Your task to perform on an android device: What is the recent news? Image 0: 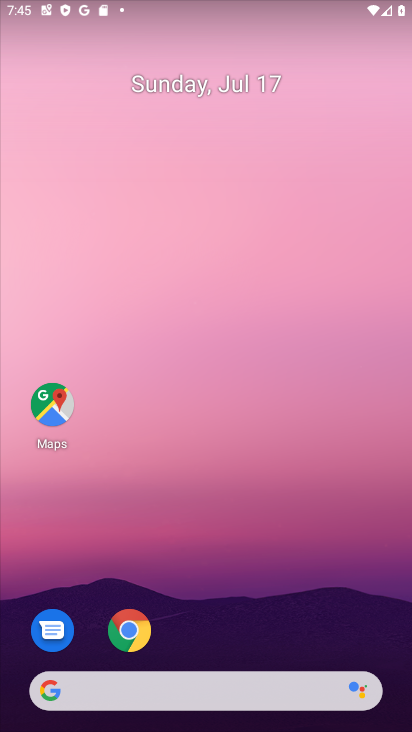
Step 0: drag from (200, 567) to (191, 63)
Your task to perform on an android device: What is the recent news? Image 1: 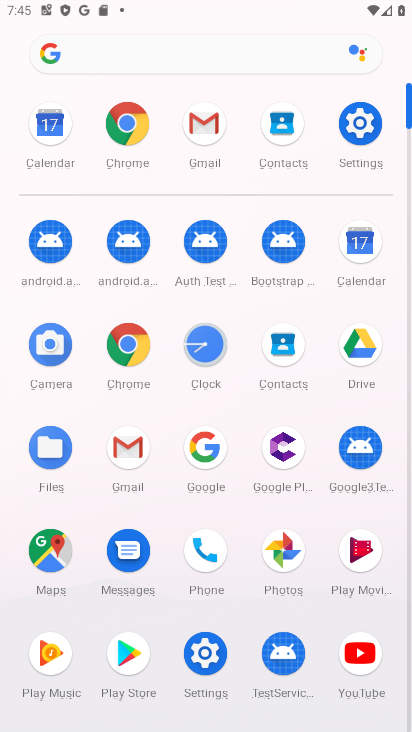
Step 1: click (212, 472)
Your task to perform on an android device: What is the recent news? Image 2: 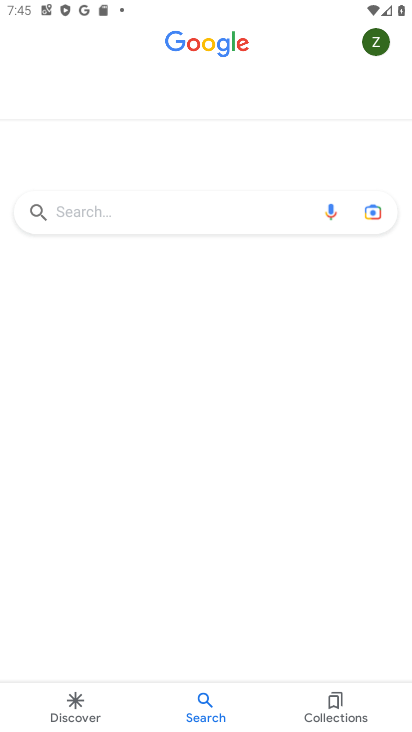
Step 2: click (133, 216)
Your task to perform on an android device: What is the recent news? Image 3: 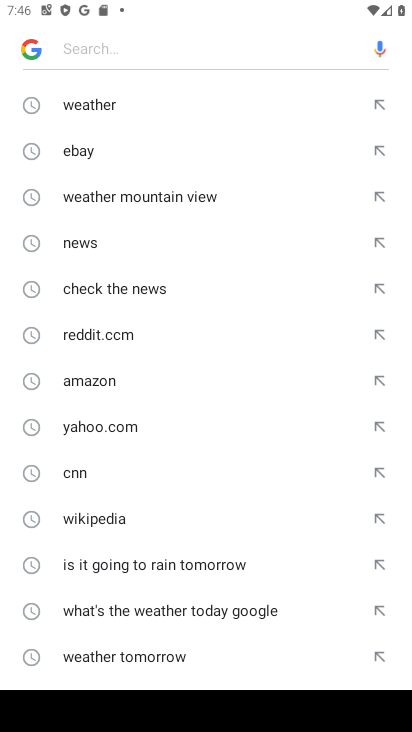
Step 3: type "recent news"
Your task to perform on an android device: What is the recent news? Image 4: 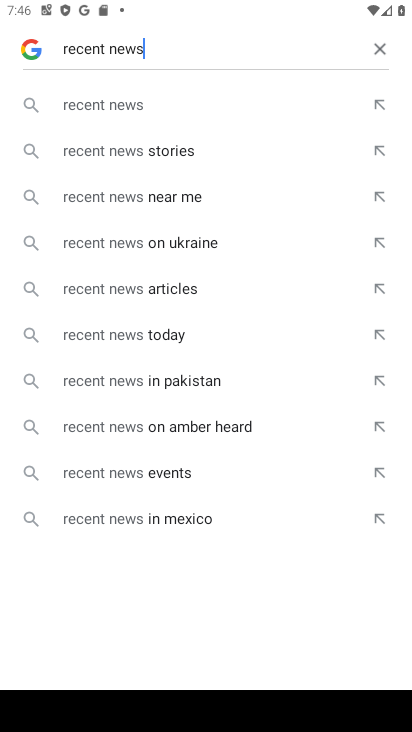
Step 4: click (115, 111)
Your task to perform on an android device: What is the recent news? Image 5: 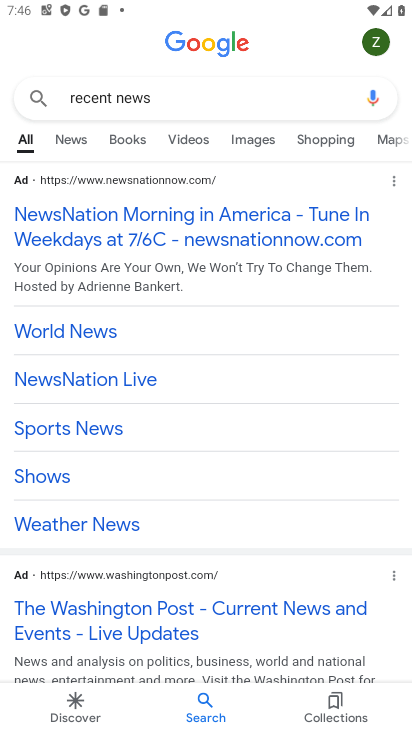
Step 5: task complete